Your task to perform on an android device: View the shopping cart on newegg. Image 0: 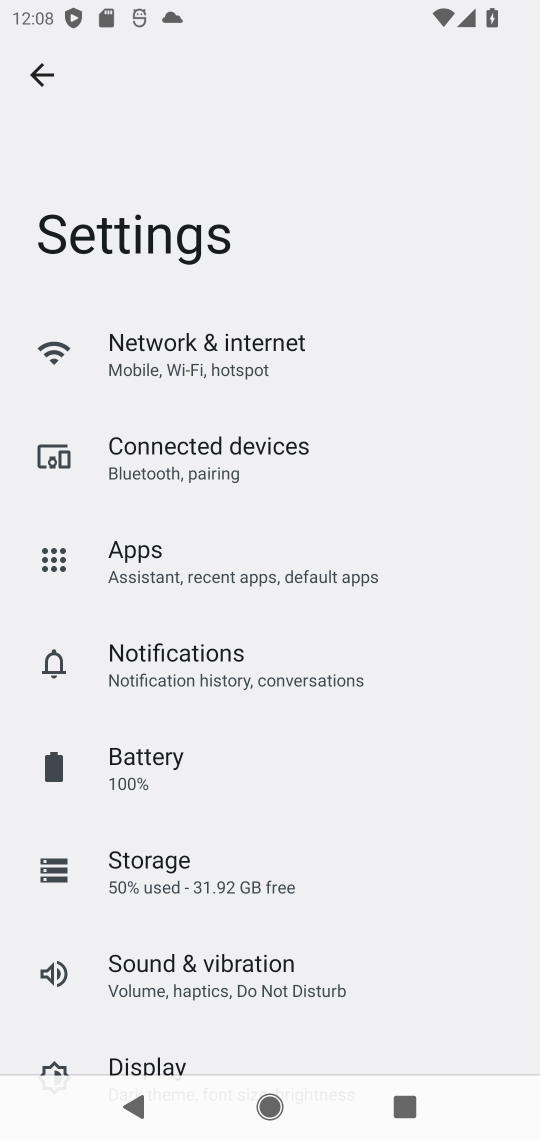
Step 0: press home button
Your task to perform on an android device: View the shopping cart on newegg. Image 1: 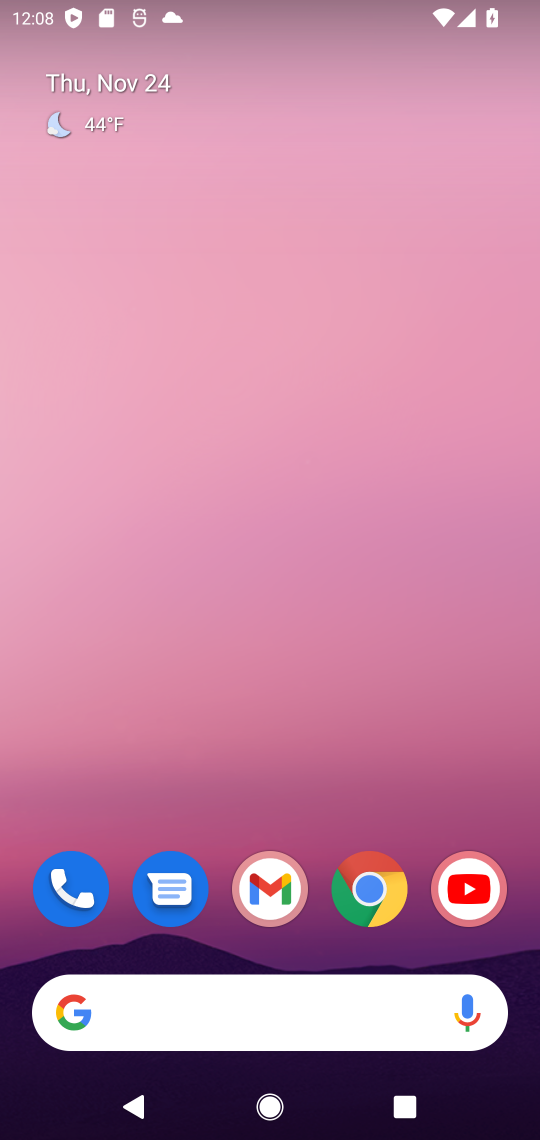
Step 1: click (379, 891)
Your task to perform on an android device: View the shopping cart on newegg. Image 2: 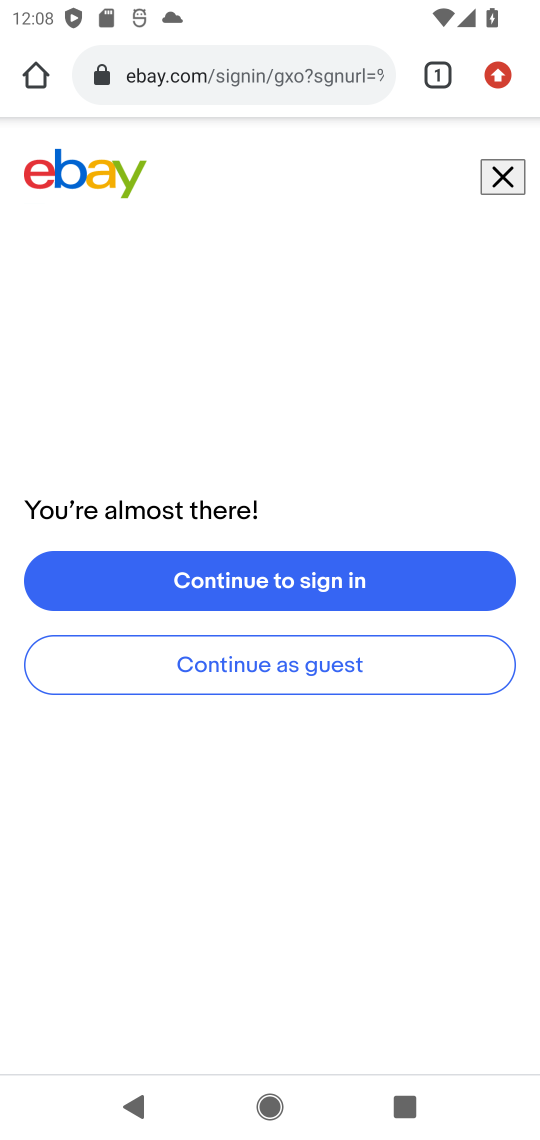
Step 2: click (211, 77)
Your task to perform on an android device: View the shopping cart on newegg. Image 3: 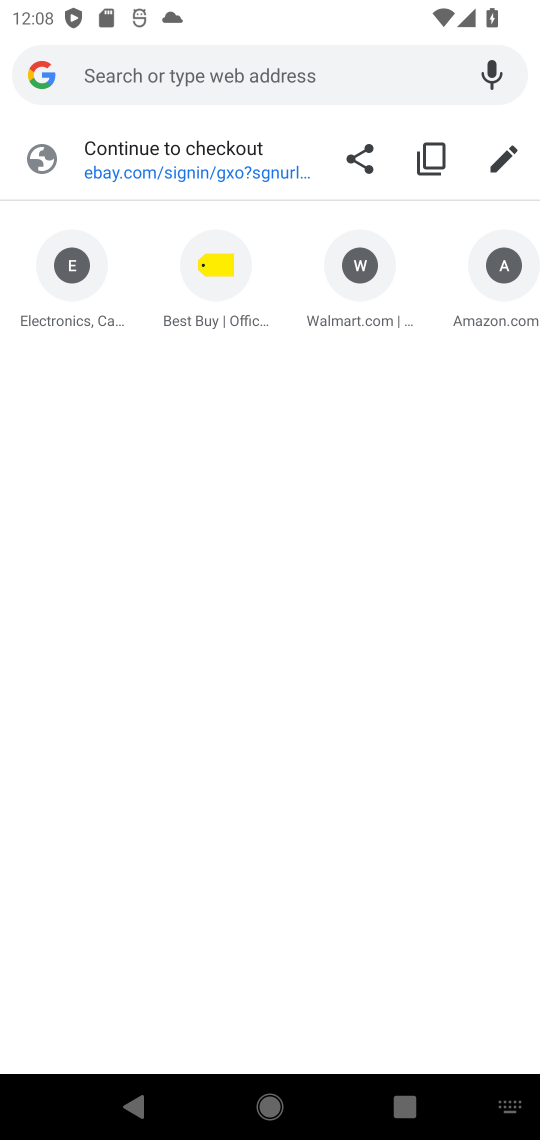
Step 3: type "newegg.com"
Your task to perform on an android device: View the shopping cart on newegg. Image 4: 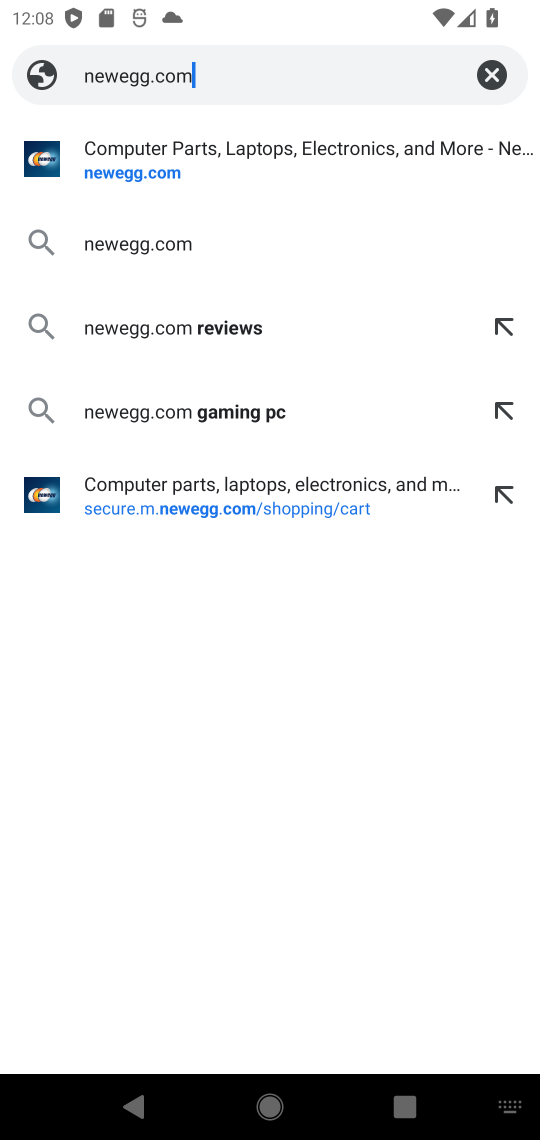
Step 4: click (111, 178)
Your task to perform on an android device: View the shopping cart on newegg. Image 5: 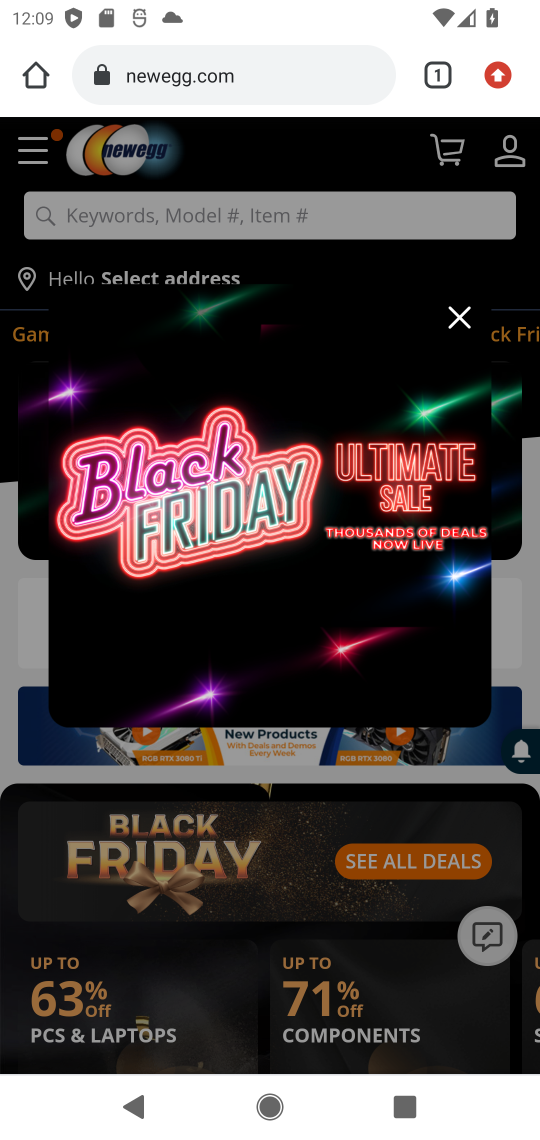
Step 5: click (460, 315)
Your task to perform on an android device: View the shopping cart on newegg. Image 6: 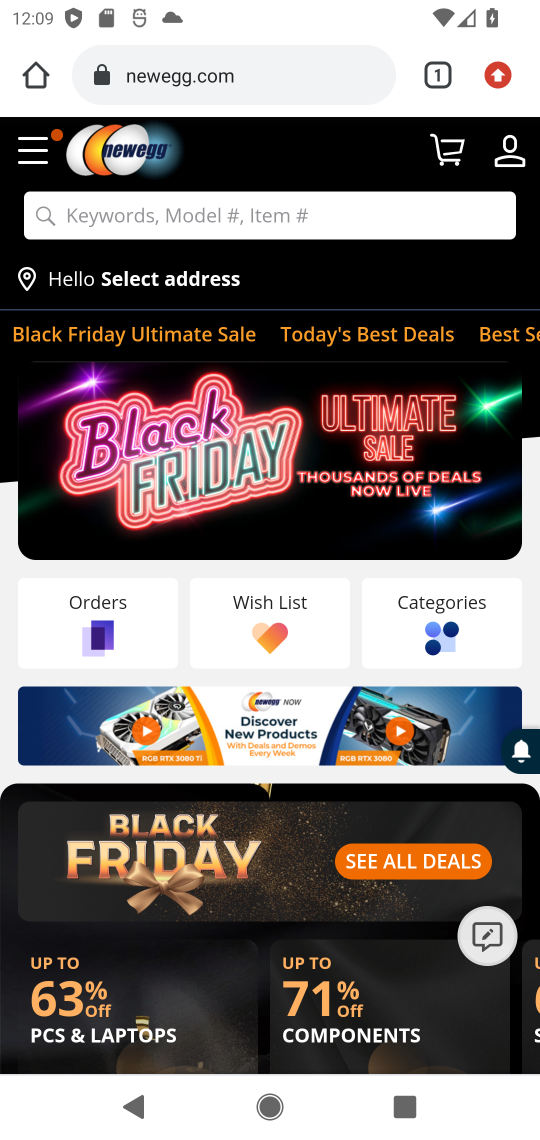
Step 6: click (443, 160)
Your task to perform on an android device: View the shopping cart on newegg. Image 7: 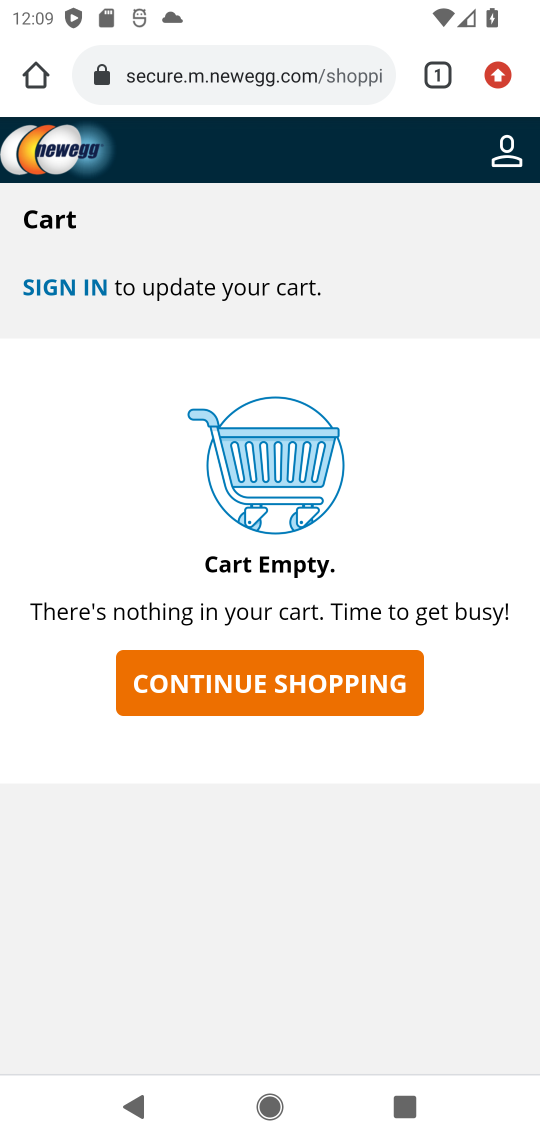
Step 7: task complete